Your task to perform on an android device: Open network settings Image 0: 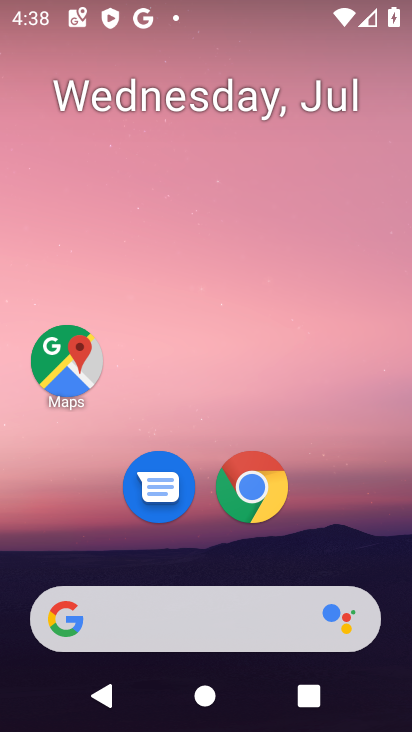
Step 0: drag from (191, 533) to (259, 7)
Your task to perform on an android device: Open network settings Image 1: 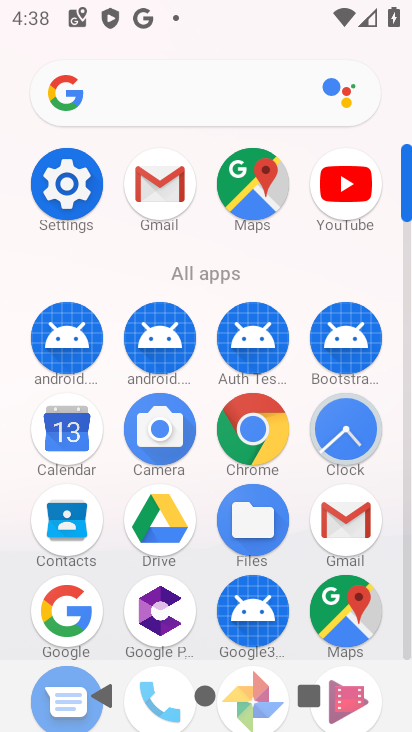
Step 1: click (67, 181)
Your task to perform on an android device: Open network settings Image 2: 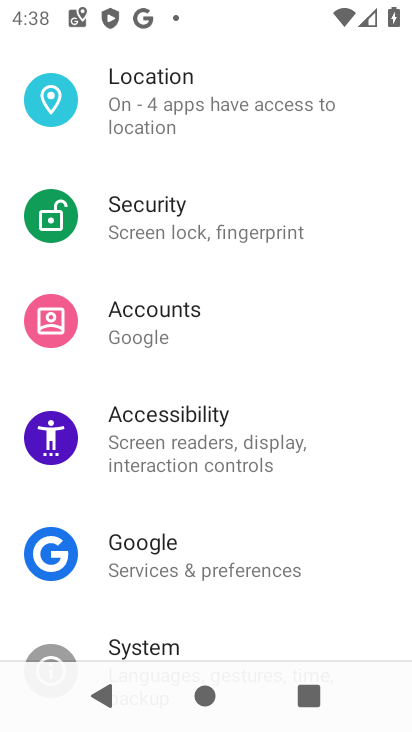
Step 2: drag from (208, 141) to (151, 654)
Your task to perform on an android device: Open network settings Image 3: 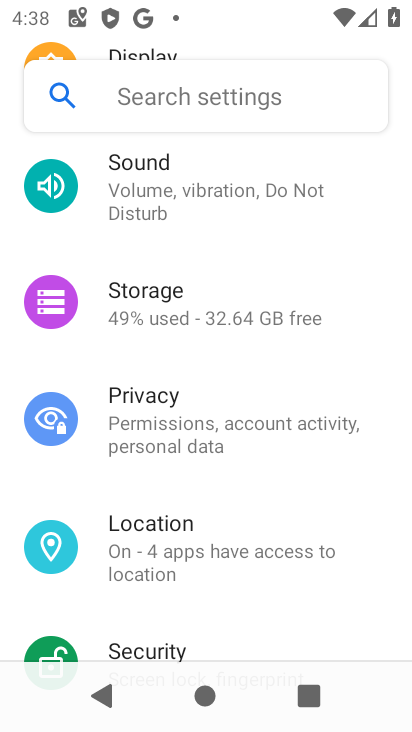
Step 3: drag from (202, 219) to (186, 727)
Your task to perform on an android device: Open network settings Image 4: 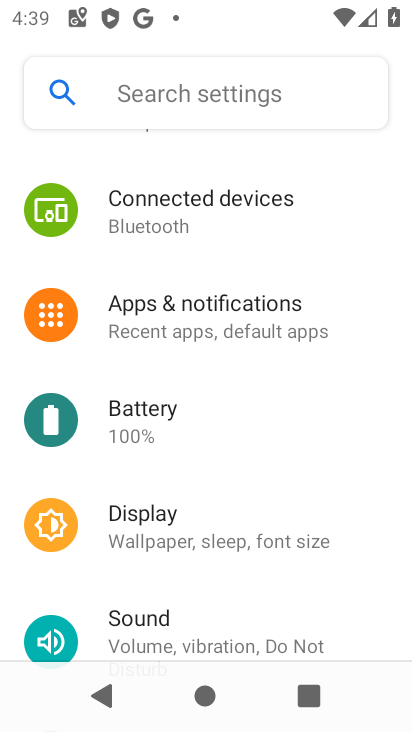
Step 4: drag from (203, 191) to (206, 682)
Your task to perform on an android device: Open network settings Image 5: 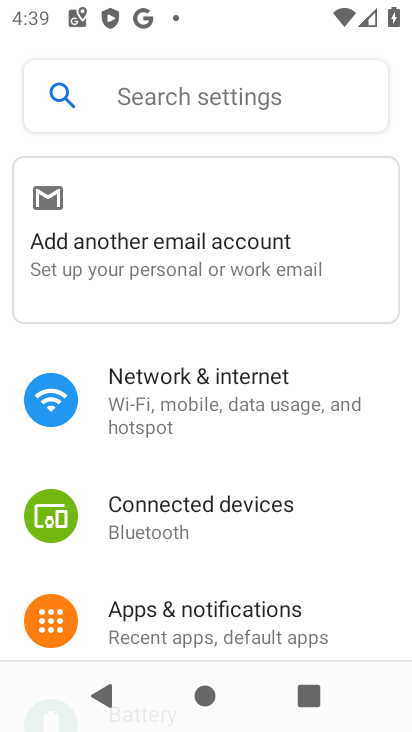
Step 5: click (168, 372)
Your task to perform on an android device: Open network settings Image 6: 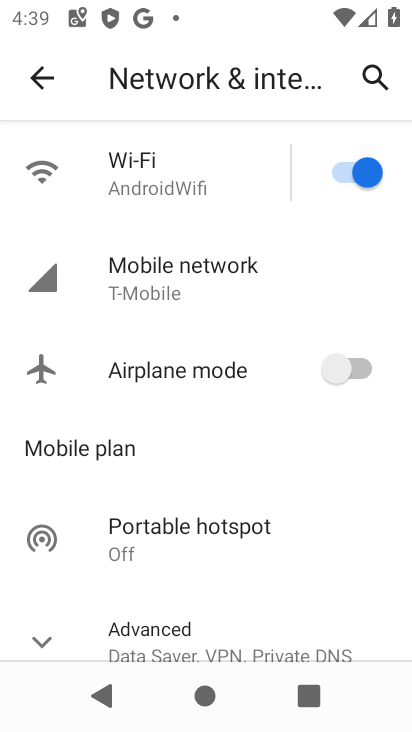
Step 6: task complete